Your task to perform on an android device: Open the web browser Image 0: 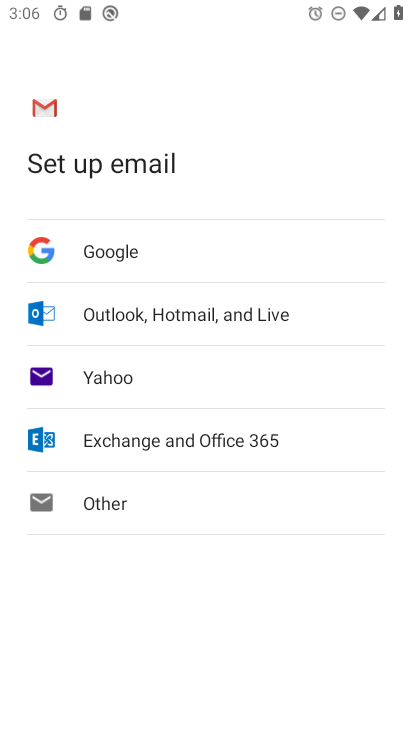
Step 0: press home button
Your task to perform on an android device: Open the web browser Image 1: 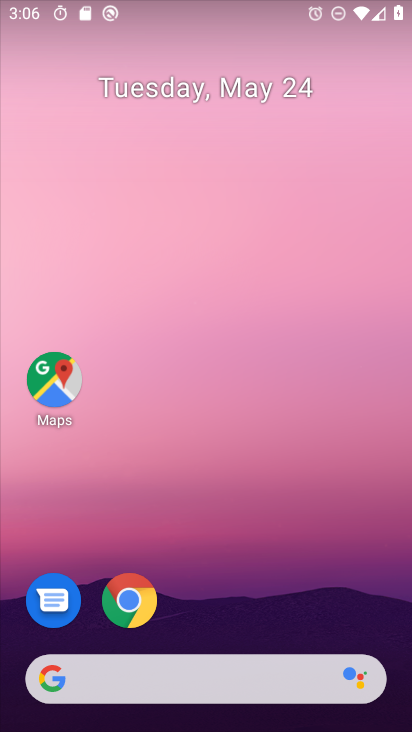
Step 1: click (124, 612)
Your task to perform on an android device: Open the web browser Image 2: 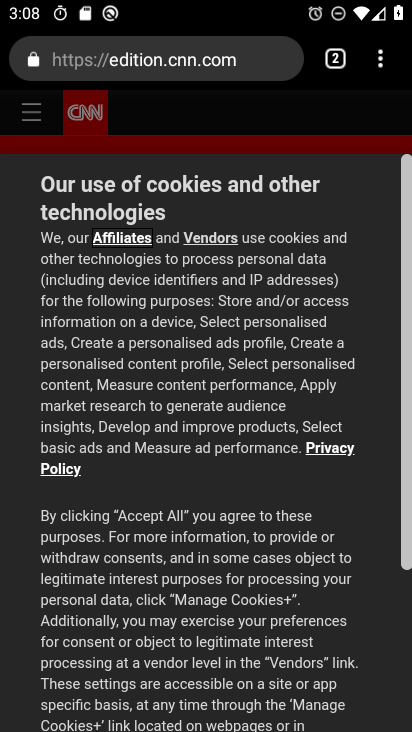
Step 2: task complete